Your task to perform on an android device: Check the news Image 0: 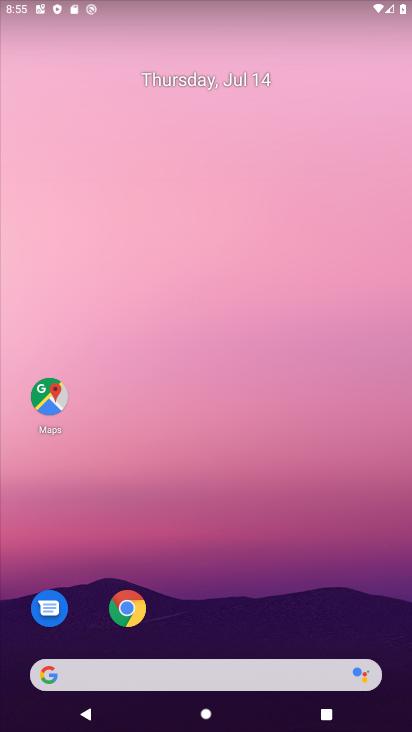
Step 0: drag from (61, 208) to (404, 288)
Your task to perform on an android device: Check the news Image 1: 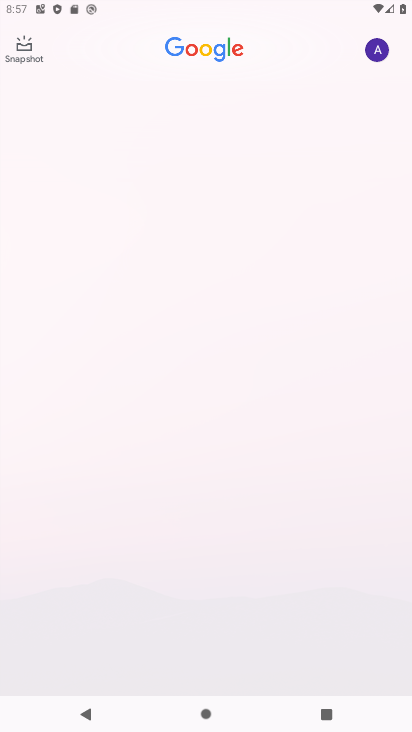
Step 1: task complete